Your task to perform on an android device: change your default location settings in chrome Image 0: 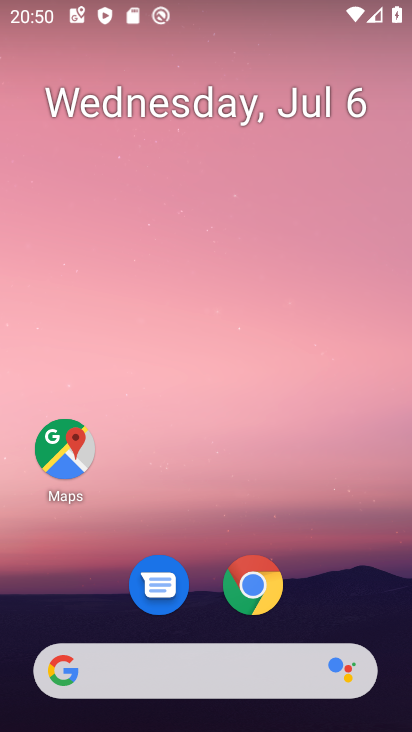
Step 0: click (253, 578)
Your task to perform on an android device: change your default location settings in chrome Image 1: 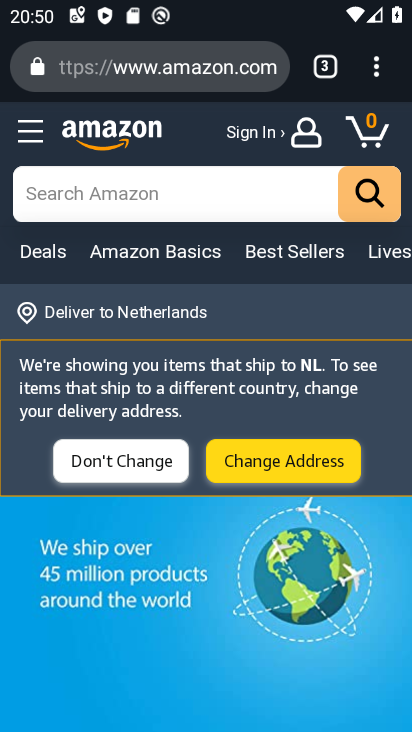
Step 1: click (378, 69)
Your task to perform on an android device: change your default location settings in chrome Image 2: 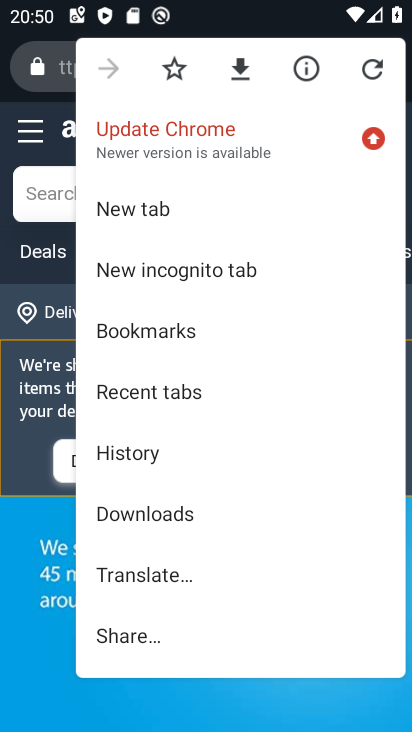
Step 2: drag from (244, 491) to (232, 173)
Your task to perform on an android device: change your default location settings in chrome Image 3: 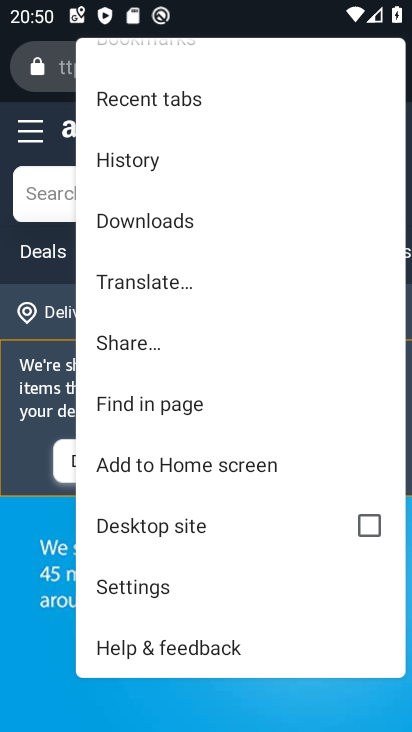
Step 3: click (147, 577)
Your task to perform on an android device: change your default location settings in chrome Image 4: 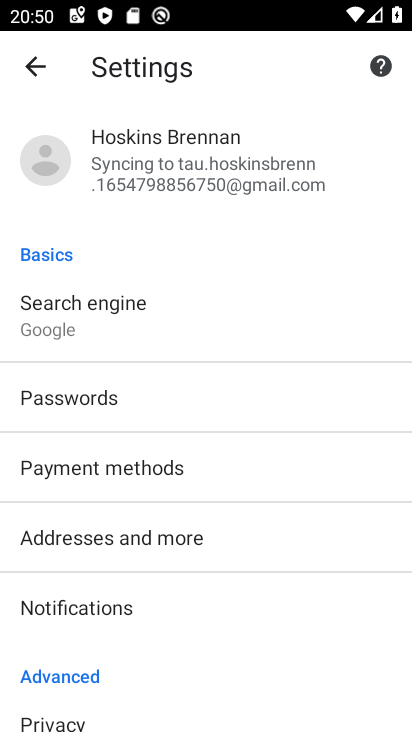
Step 4: drag from (241, 454) to (250, 126)
Your task to perform on an android device: change your default location settings in chrome Image 5: 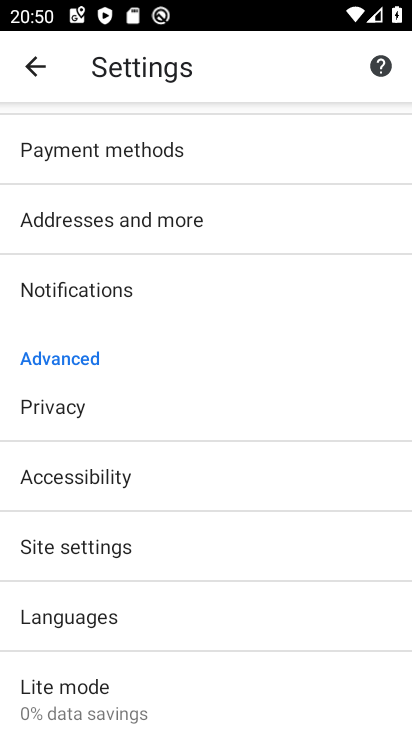
Step 5: click (106, 543)
Your task to perform on an android device: change your default location settings in chrome Image 6: 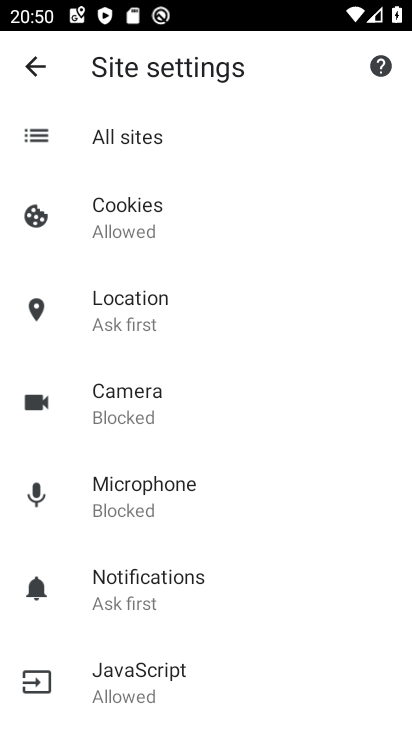
Step 6: click (146, 313)
Your task to perform on an android device: change your default location settings in chrome Image 7: 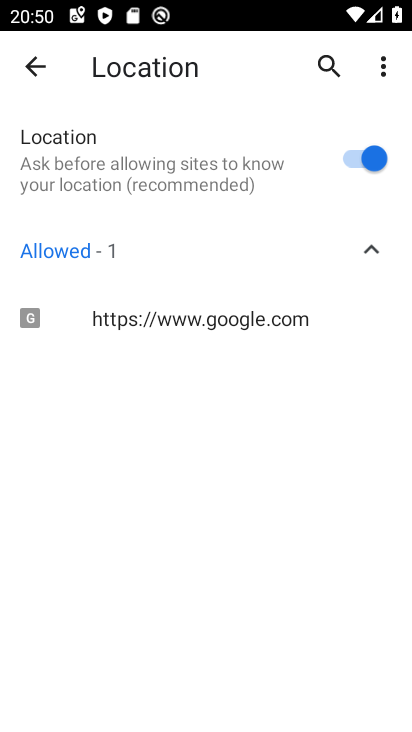
Step 7: click (360, 159)
Your task to perform on an android device: change your default location settings in chrome Image 8: 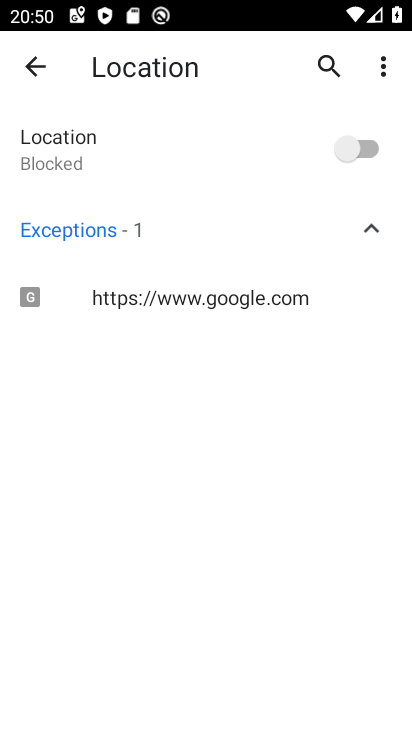
Step 8: task complete